Your task to perform on an android device: Search for Mexican restaurants on Maps Image 0: 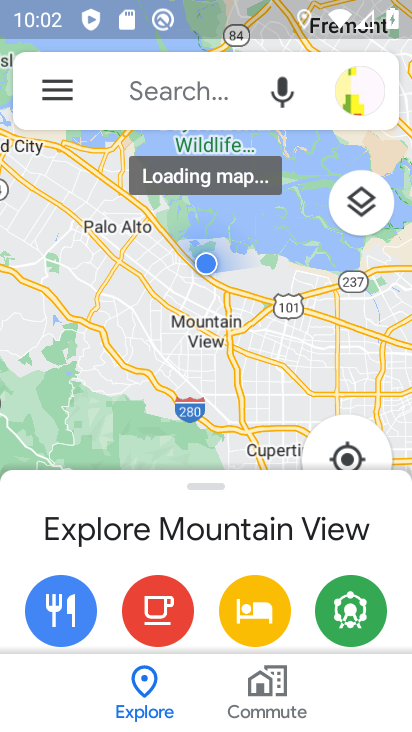
Step 0: press home button
Your task to perform on an android device: Search for Mexican restaurants on Maps Image 1: 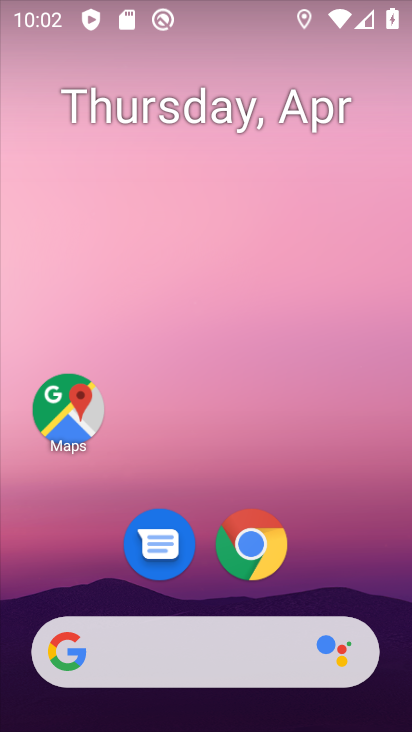
Step 1: click (62, 405)
Your task to perform on an android device: Search for Mexican restaurants on Maps Image 2: 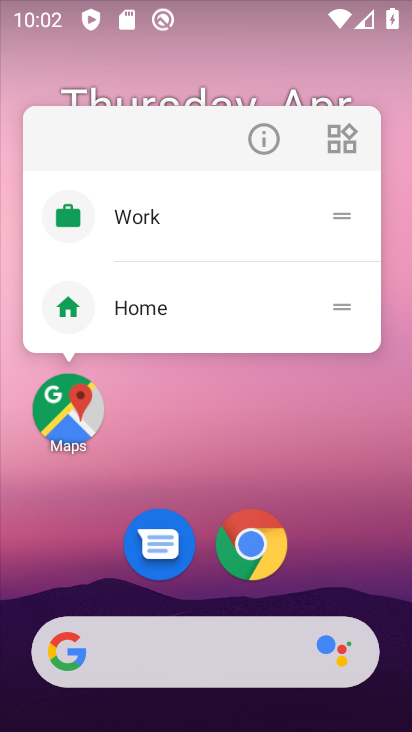
Step 2: click (62, 412)
Your task to perform on an android device: Search for Mexican restaurants on Maps Image 3: 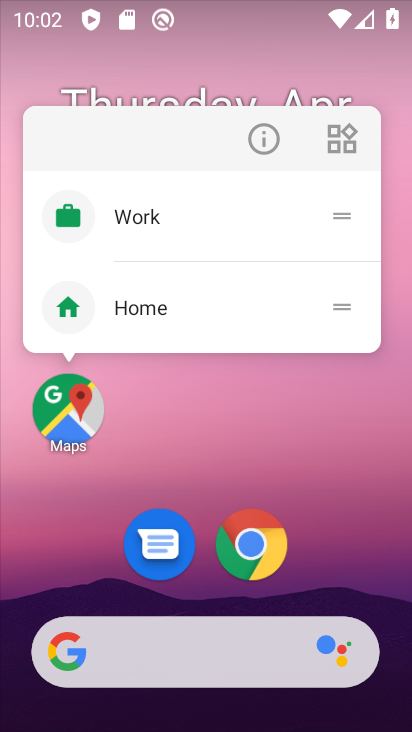
Step 3: click (62, 412)
Your task to perform on an android device: Search for Mexican restaurants on Maps Image 4: 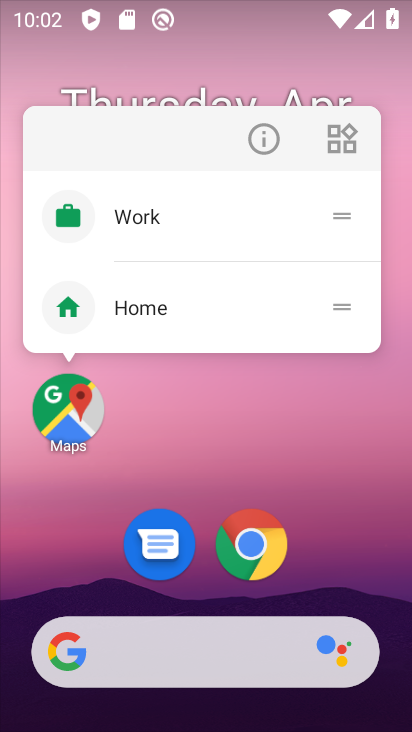
Step 4: click (273, 135)
Your task to perform on an android device: Search for Mexican restaurants on Maps Image 5: 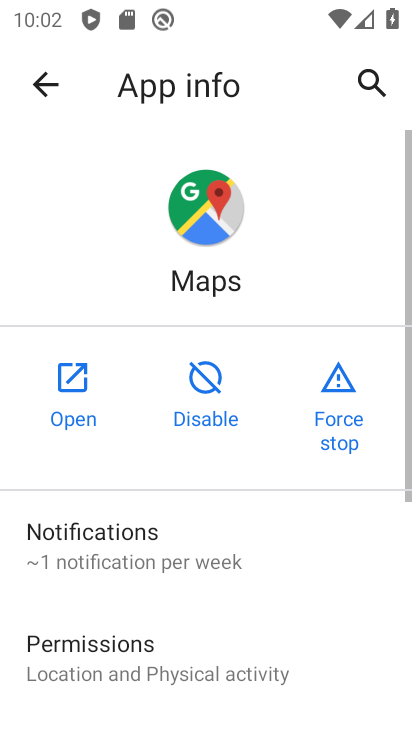
Step 5: click (58, 393)
Your task to perform on an android device: Search for Mexican restaurants on Maps Image 6: 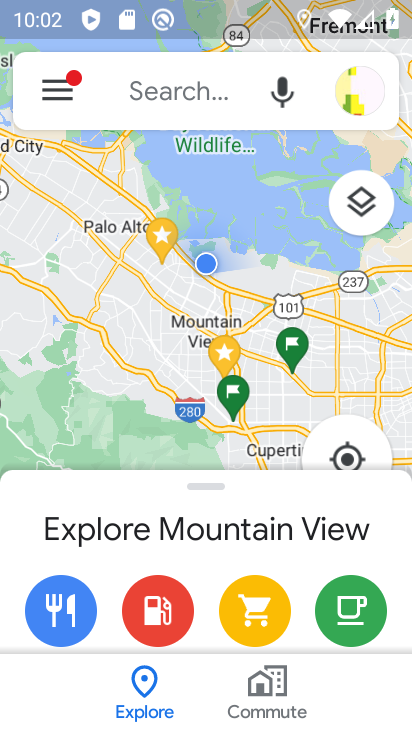
Step 6: click (225, 84)
Your task to perform on an android device: Search for Mexican restaurants on Maps Image 7: 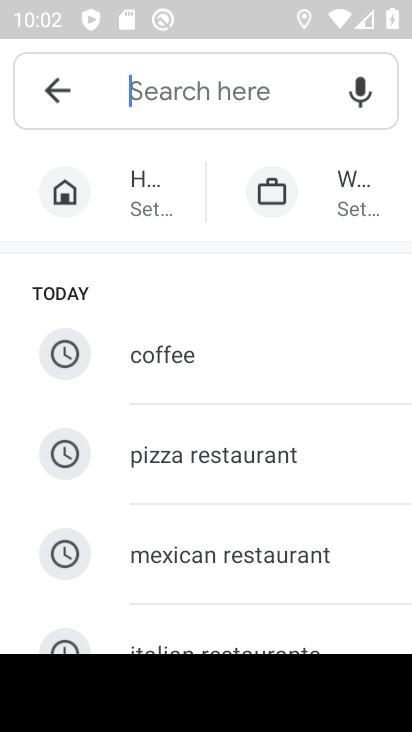
Step 7: click (245, 548)
Your task to perform on an android device: Search for Mexican restaurants on Maps Image 8: 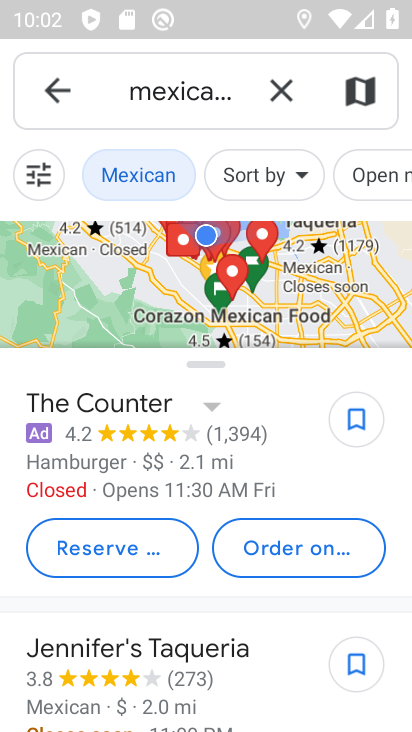
Step 8: task complete